Your task to perform on an android device: open sync settings in chrome Image 0: 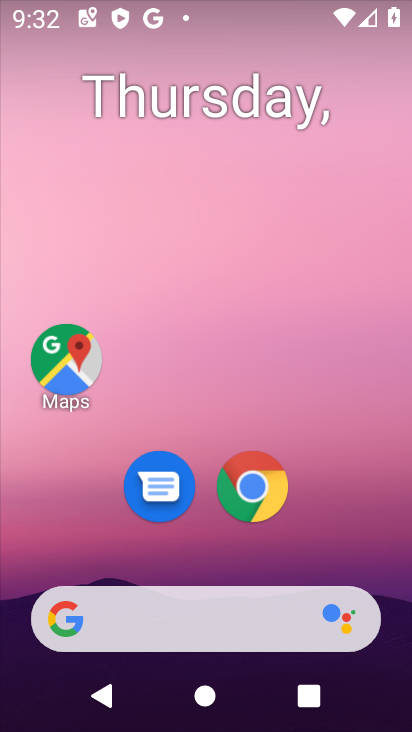
Step 0: click (245, 478)
Your task to perform on an android device: open sync settings in chrome Image 1: 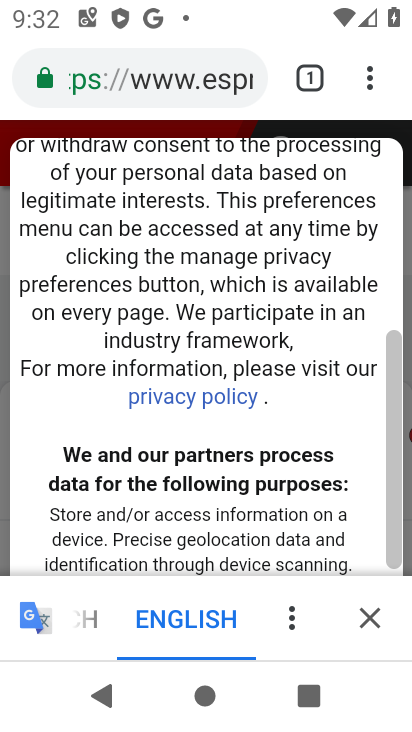
Step 1: click (360, 65)
Your task to perform on an android device: open sync settings in chrome Image 2: 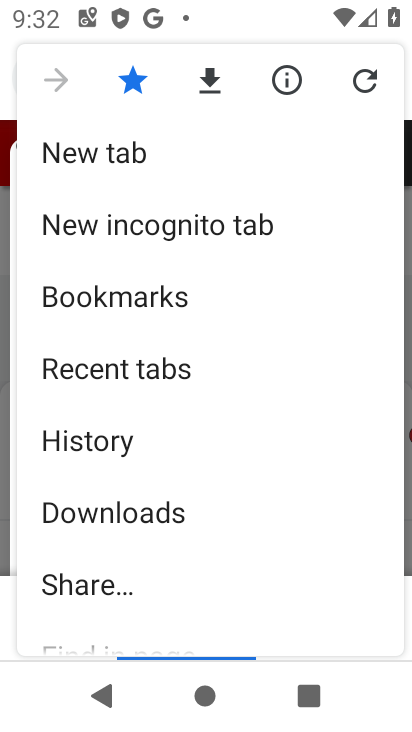
Step 2: drag from (150, 554) to (151, 171)
Your task to perform on an android device: open sync settings in chrome Image 3: 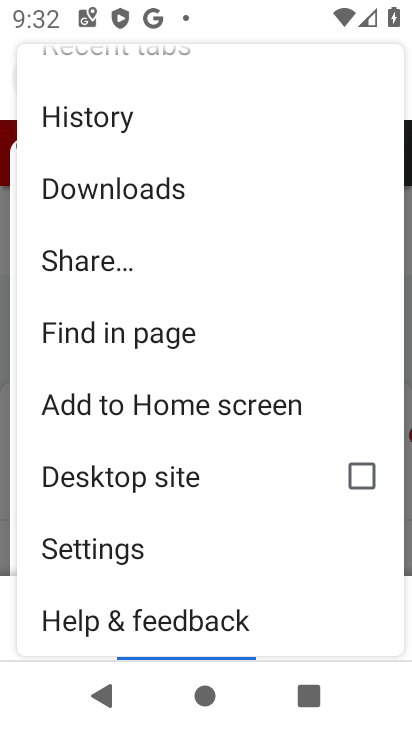
Step 3: click (129, 557)
Your task to perform on an android device: open sync settings in chrome Image 4: 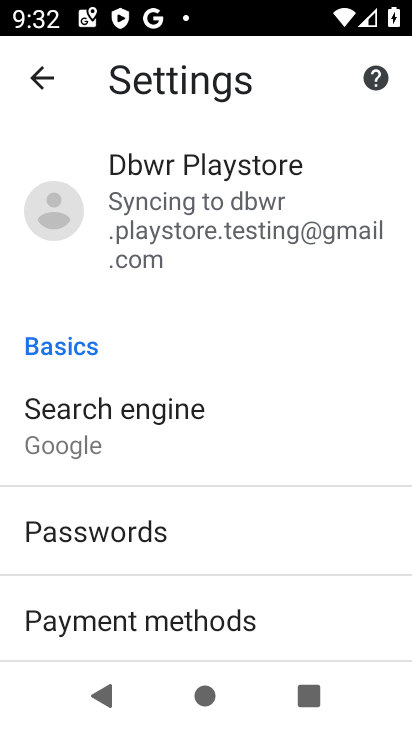
Step 4: click (161, 239)
Your task to perform on an android device: open sync settings in chrome Image 5: 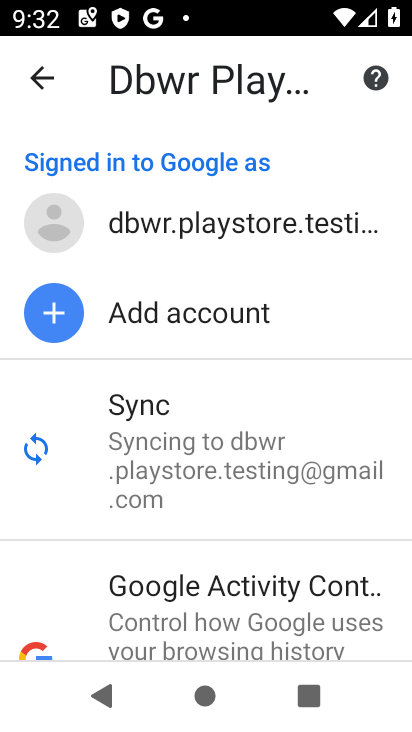
Step 5: click (135, 427)
Your task to perform on an android device: open sync settings in chrome Image 6: 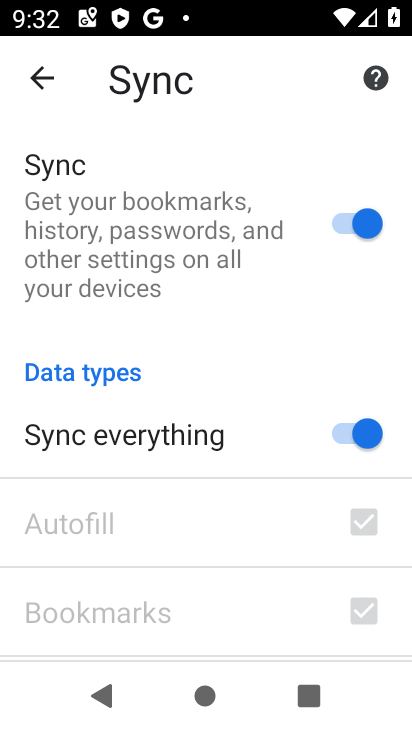
Step 6: task complete